Your task to perform on an android device: toggle notification dots Image 0: 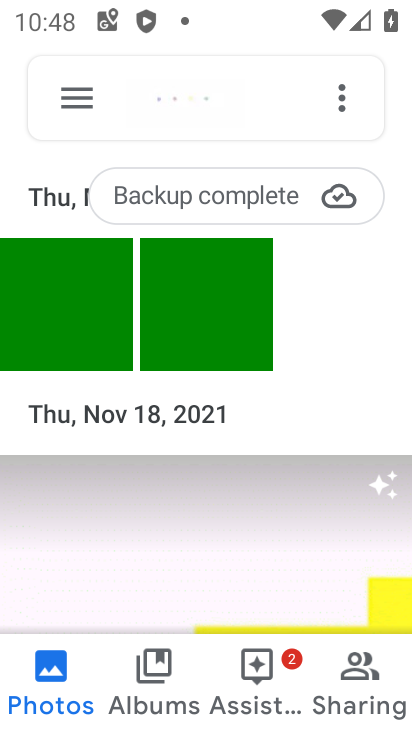
Step 0: press home button
Your task to perform on an android device: toggle notification dots Image 1: 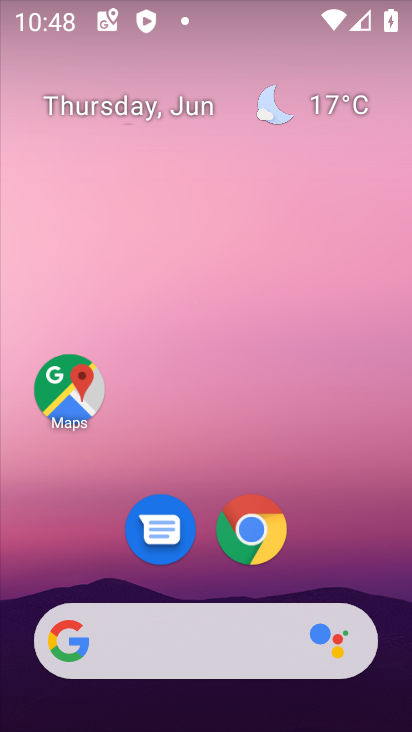
Step 1: drag from (348, 548) to (411, 81)
Your task to perform on an android device: toggle notification dots Image 2: 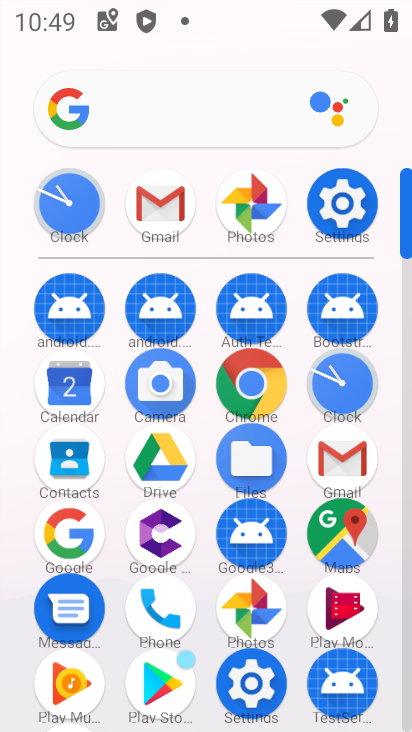
Step 2: click (339, 209)
Your task to perform on an android device: toggle notification dots Image 3: 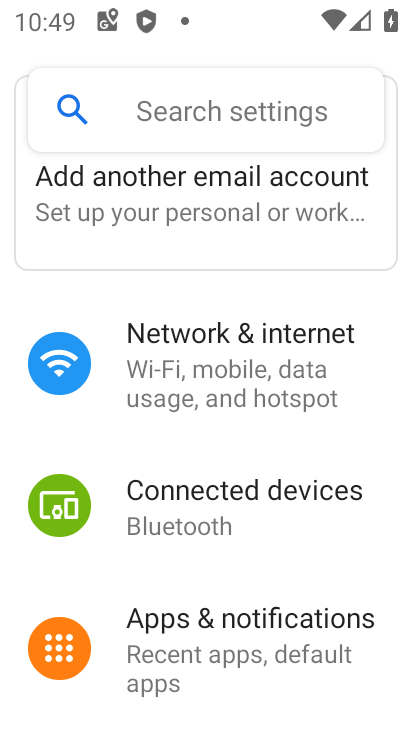
Step 3: click (187, 663)
Your task to perform on an android device: toggle notification dots Image 4: 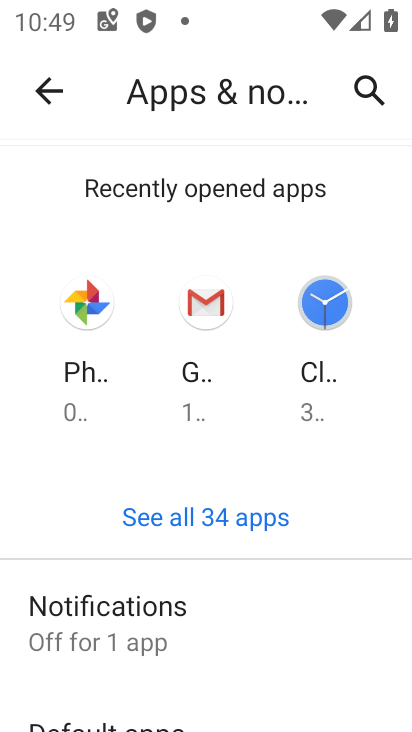
Step 4: click (177, 636)
Your task to perform on an android device: toggle notification dots Image 5: 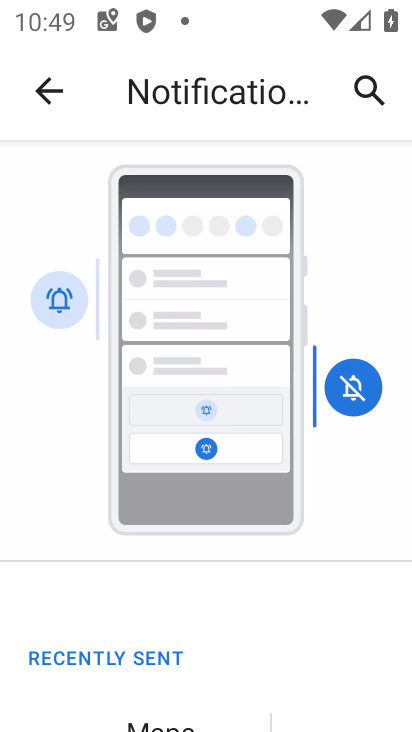
Step 5: drag from (247, 675) to (333, 254)
Your task to perform on an android device: toggle notification dots Image 6: 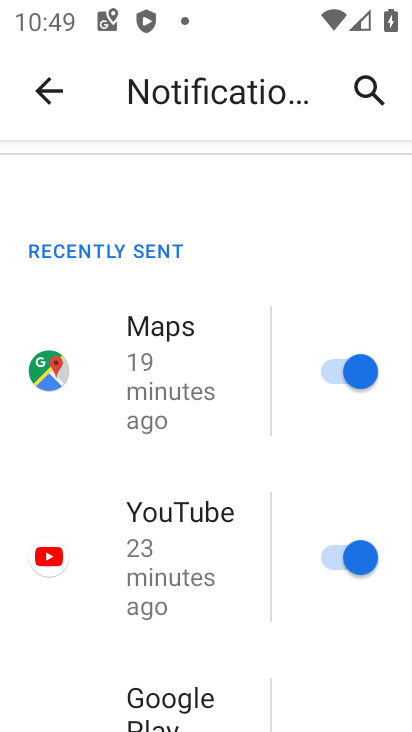
Step 6: drag from (230, 552) to (306, 183)
Your task to perform on an android device: toggle notification dots Image 7: 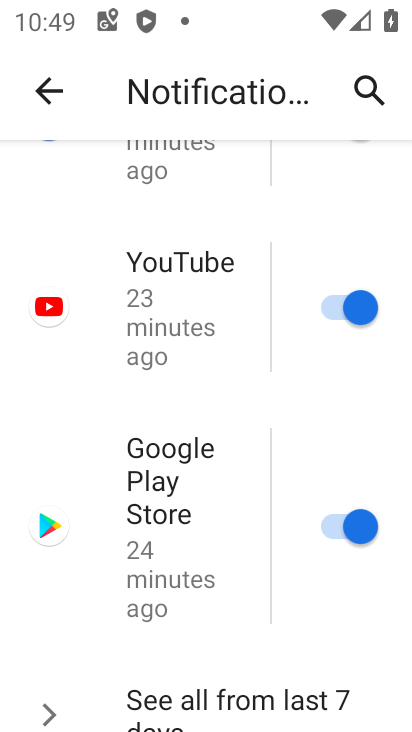
Step 7: drag from (216, 508) to (268, 55)
Your task to perform on an android device: toggle notification dots Image 8: 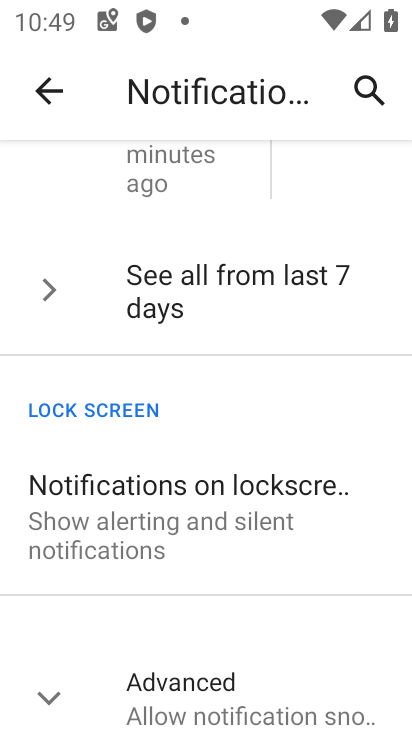
Step 8: click (162, 673)
Your task to perform on an android device: toggle notification dots Image 9: 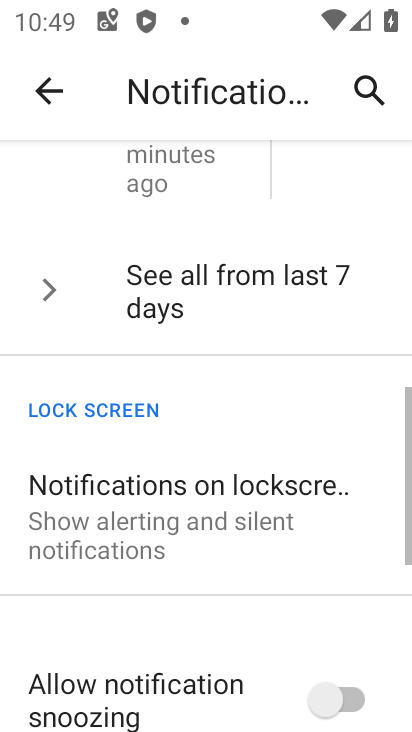
Step 9: drag from (200, 630) to (264, 174)
Your task to perform on an android device: toggle notification dots Image 10: 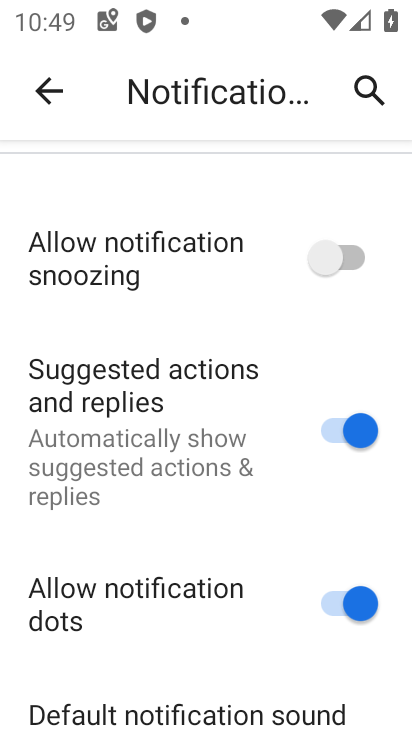
Step 10: click (361, 616)
Your task to perform on an android device: toggle notification dots Image 11: 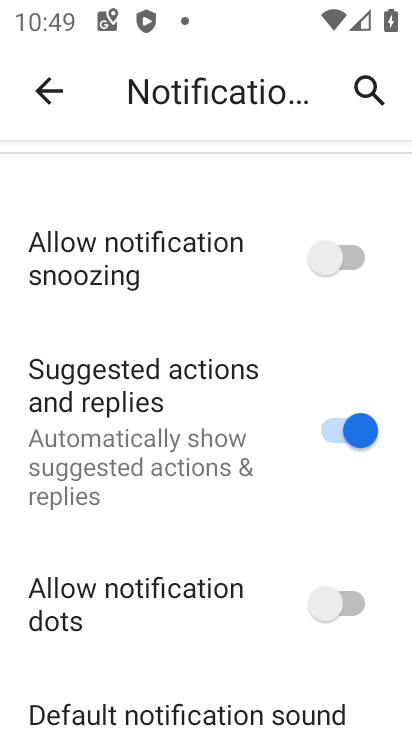
Step 11: task complete